Your task to perform on an android device: toggle notifications settings in the gmail app Image 0: 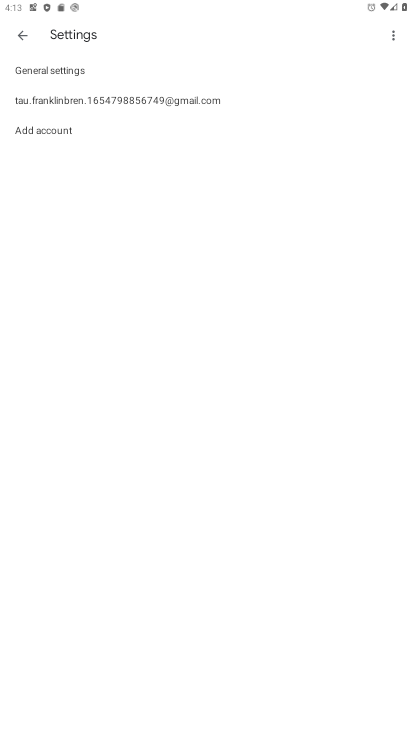
Step 0: press home button
Your task to perform on an android device: toggle notifications settings in the gmail app Image 1: 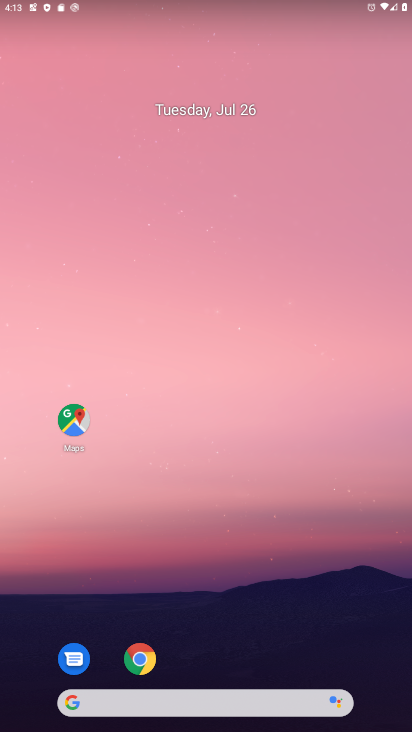
Step 1: drag from (228, 582) to (211, 26)
Your task to perform on an android device: toggle notifications settings in the gmail app Image 2: 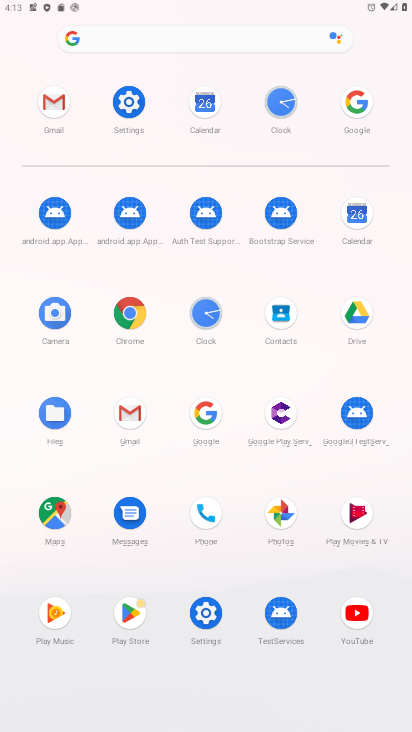
Step 2: click (46, 103)
Your task to perform on an android device: toggle notifications settings in the gmail app Image 3: 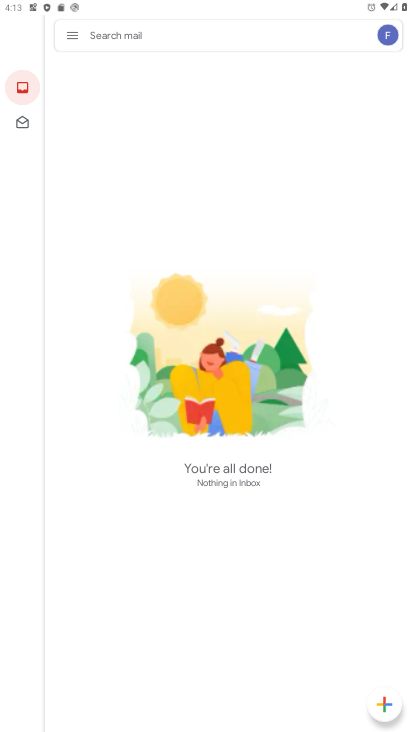
Step 3: click (67, 33)
Your task to perform on an android device: toggle notifications settings in the gmail app Image 4: 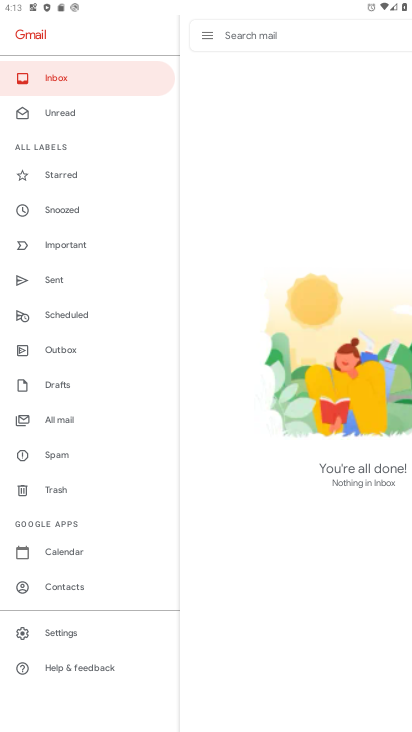
Step 4: drag from (70, 378) to (135, 132)
Your task to perform on an android device: toggle notifications settings in the gmail app Image 5: 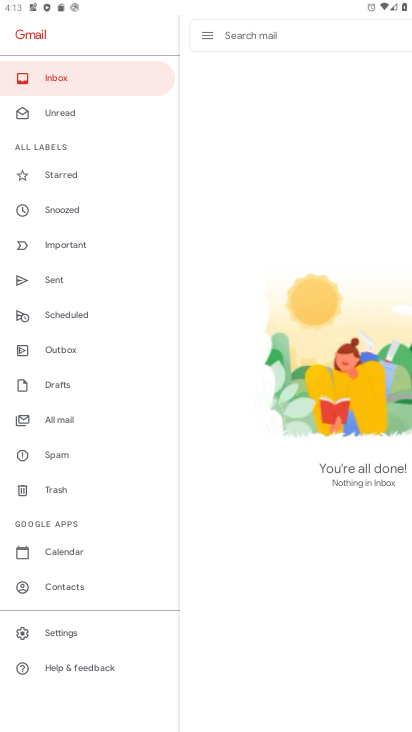
Step 5: click (55, 627)
Your task to perform on an android device: toggle notifications settings in the gmail app Image 6: 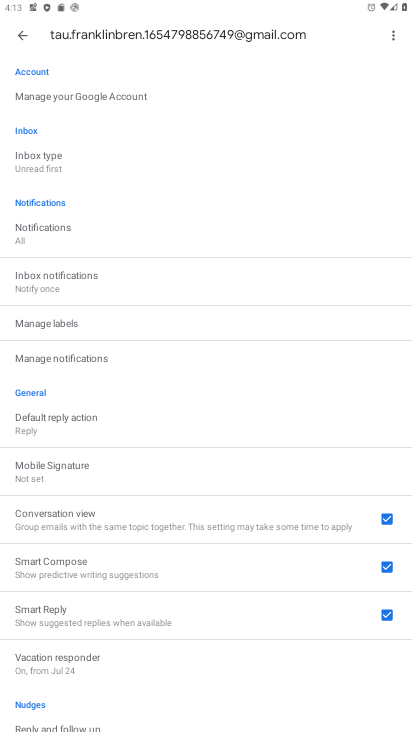
Step 6: click (59, 231)
Your task to perform on an android device: toggle notifications settings in the gmail app Image 7: 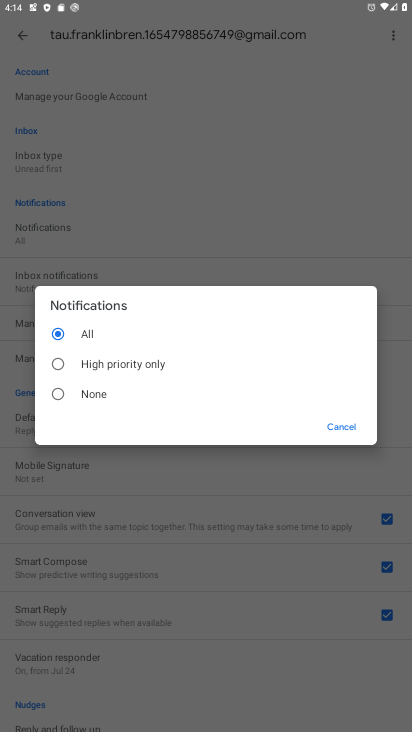
Step 7: click (102, 371)
Your task to perform on an android device: toggle notifications settings in the gmail app Image 8: 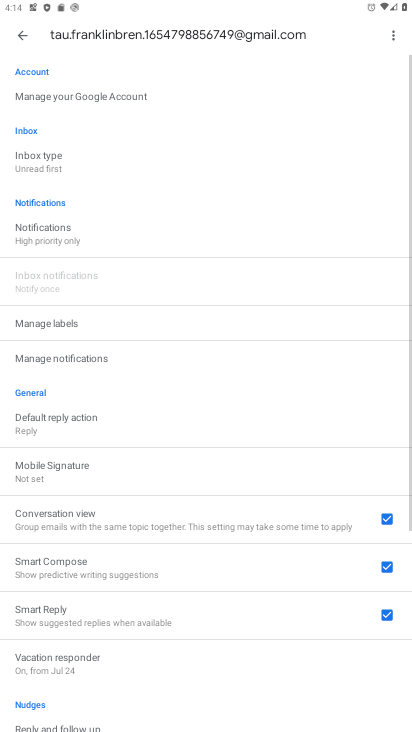
Step 8: task complete